Your task to perform on an android device: create a new album in the google photos Image 0: 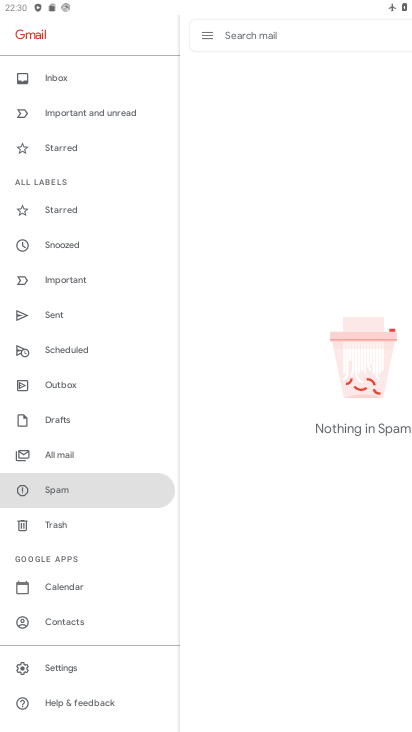
Step 0: press home button
Your task to perform on an android device: create a new album in the google photos Image 1: 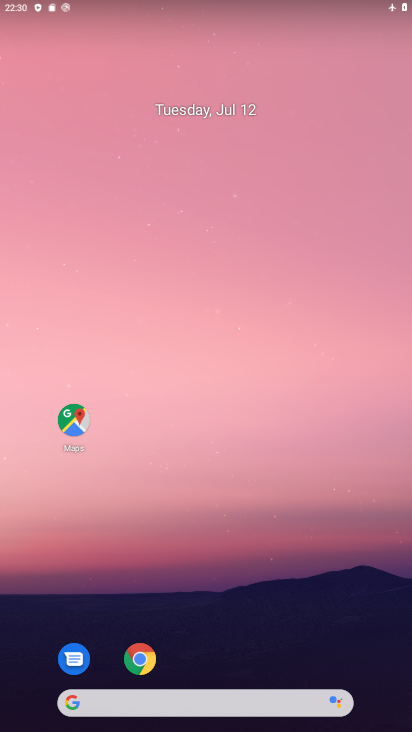
Step 1: drag from (209, 537) to (186, 194)
Your task to perform on an android device: create a new album in the google photos Image 2: 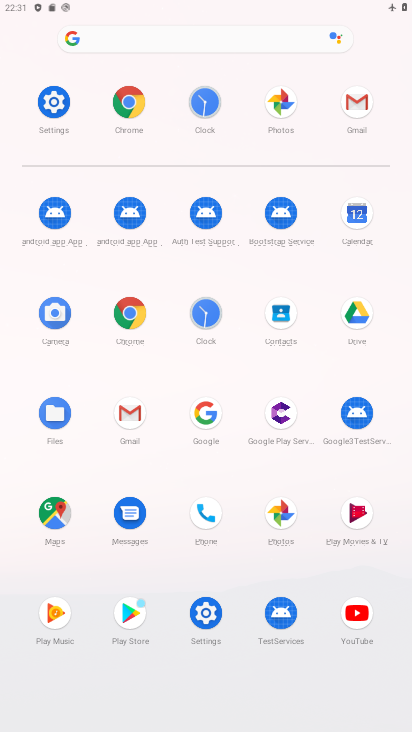
Step 2: click (276, 106)
Your task to perform on an android device: create a new album in the google photos Image 3: 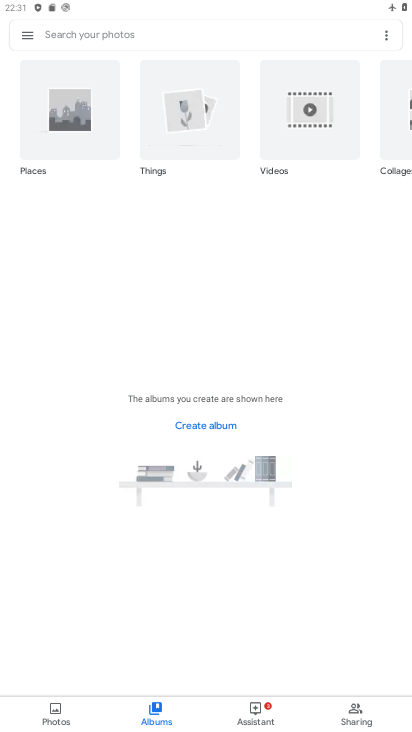
Step 3: task complete